Your task to perform on an android device: Open my contact list Image 0: 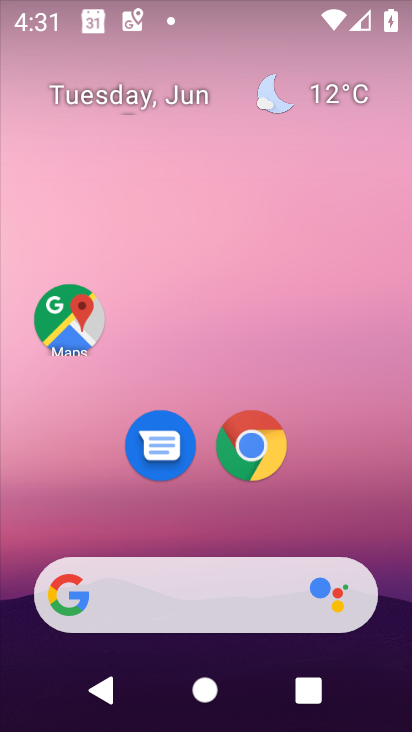
Step 0: drag from (351, 507) to (411, 31)
Your task to perform on an android device: Open my contact list Image 1: 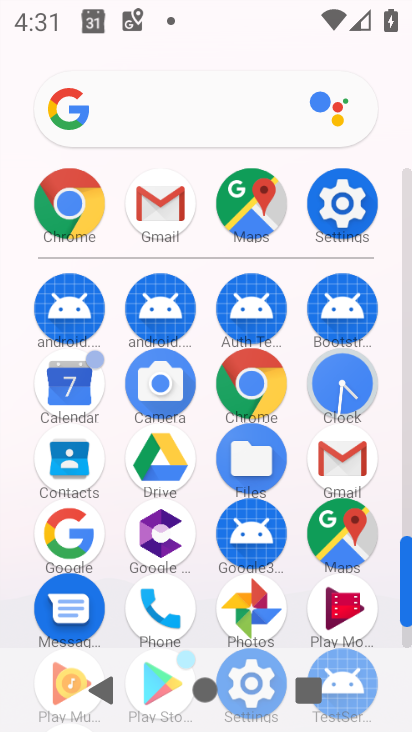
Step 1: click (159, 607)
Your task to perform on an android device: Open my contact list Image 2: 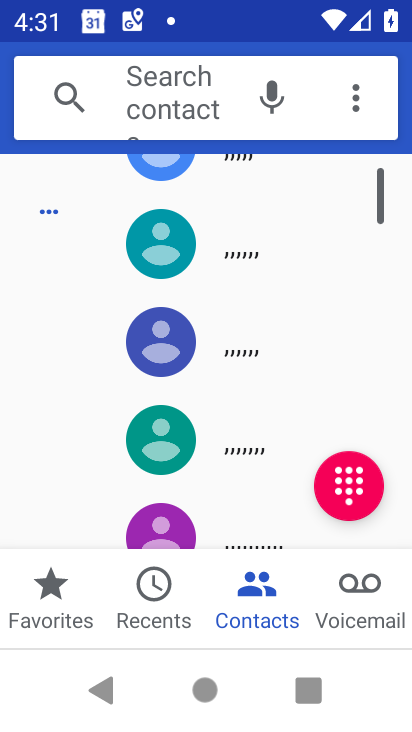
Step 2: task complete